Your task to perform on an android device: Open sound settings Image 0: 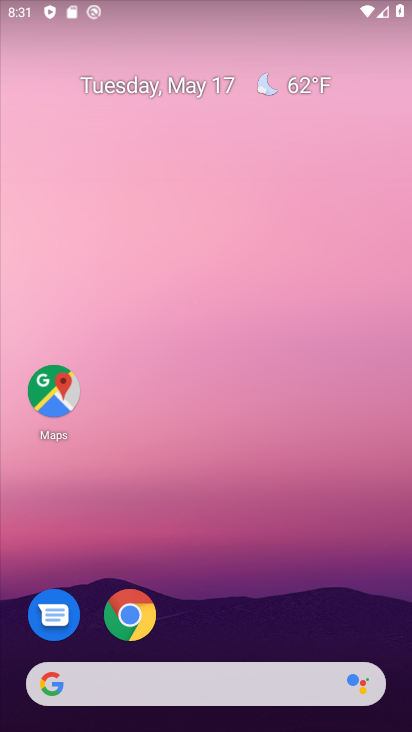
Step 0: drag from (261, 586) to (237, 285)
Your task to perform on an android device: Open sound settings Image 1: 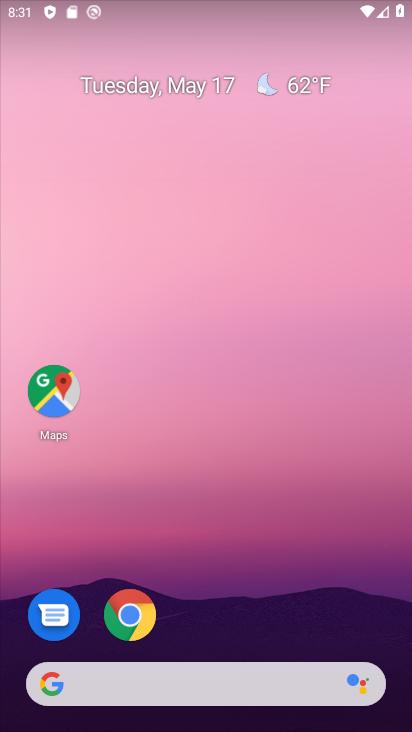
Step 1: drag from (261, 588) to (230, 8)
Your task to perform on an android device: Open sound settings Image 2: 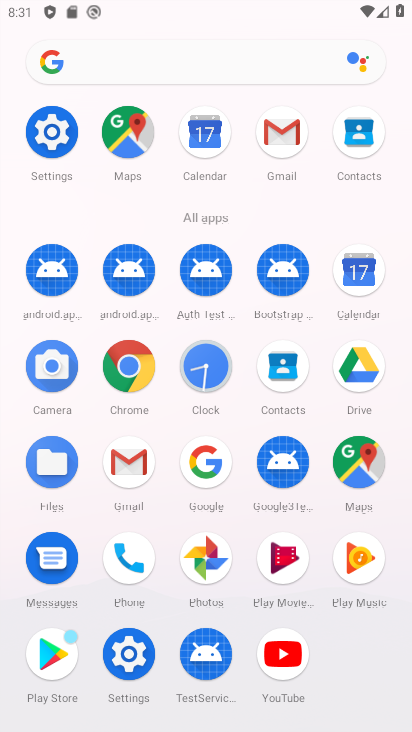
Step 2: click (50, 122)
Your task to perform on an android device: Open sound settings Image 3: 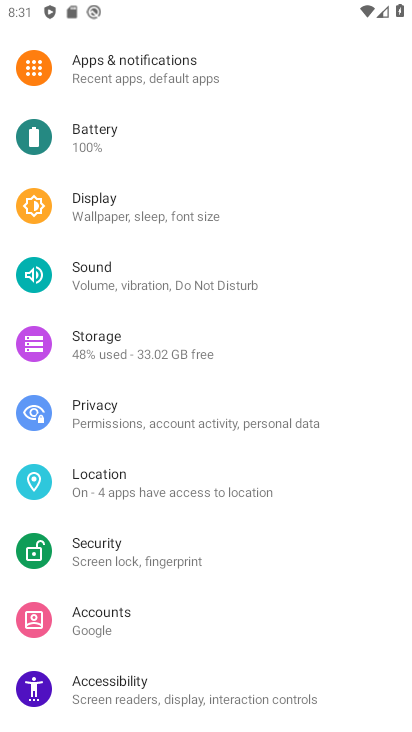
Step 3: click (96, 277)
Your task to perform on an android device: Open sound settings Image 4: 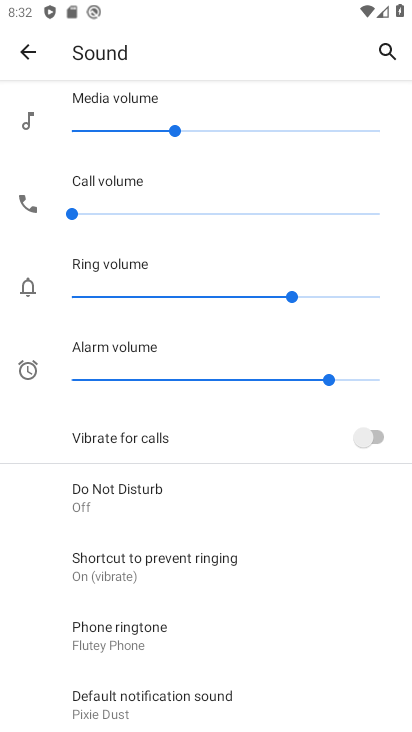
Step 4: task complete